Your task to perform on an android device: Open network settings Image 0: 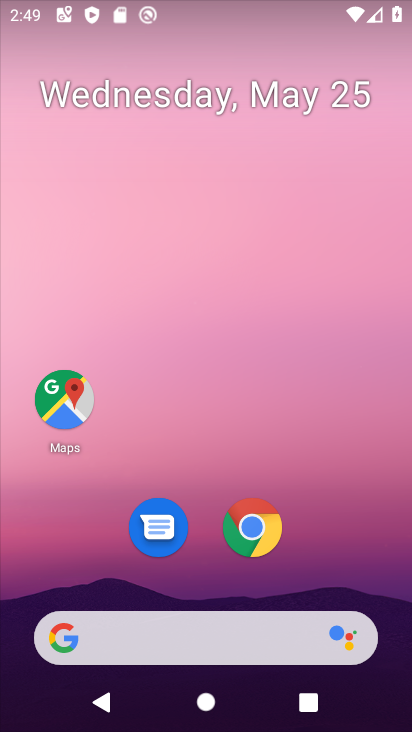
Step 0: drag from (194, 538) to (232, 67)
Your task to perform on an android device: Open network settings Image 1: 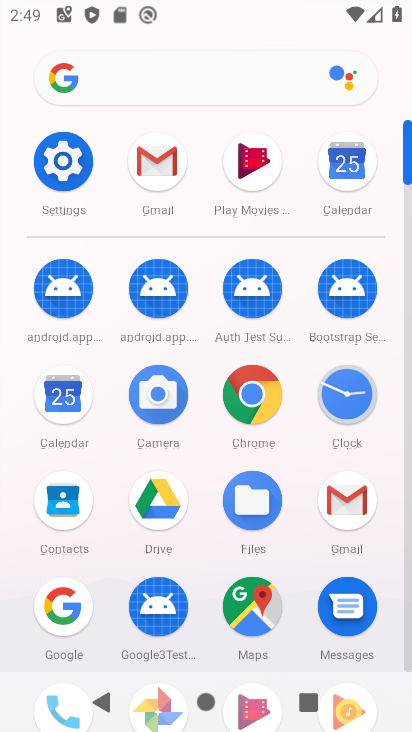
Step 1: click (55, 156)
Your task to perform on an android device: Open network settings Image 2: 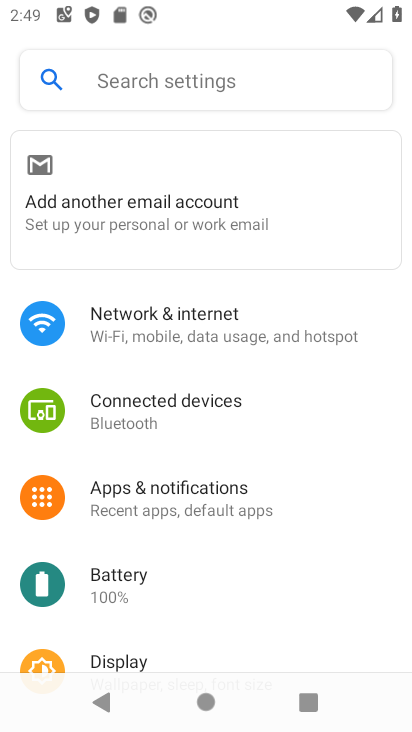
Step 2: click (168, 337)
Your task to perform on an android device: Open network settings Image 3: 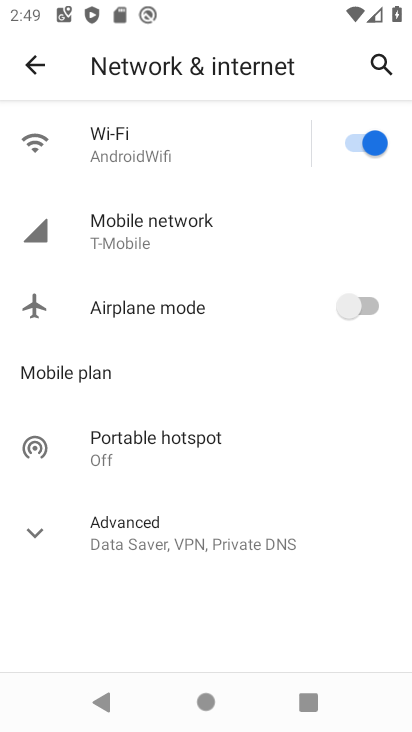
Step 3: task complete